Your task to perform on an android device: turn notification dots off Image 0: 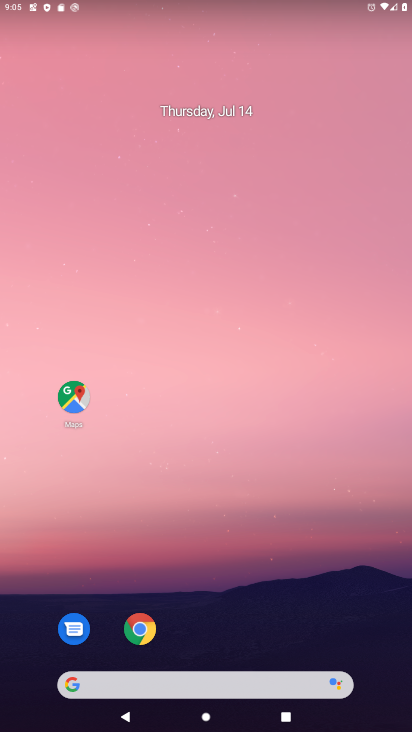
Step 0: drag from (272, 574) to (294, 288)
Your task to perform on an android device: turn notification dots off Image 1: 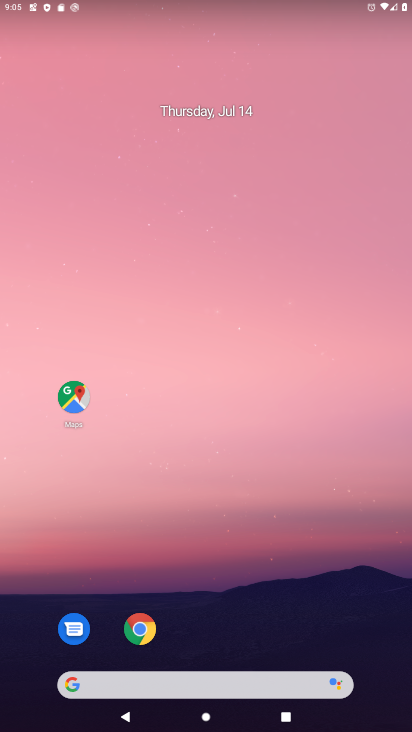
Step 1: drag from (294, 605) to (308, 109)
Your task to perform on an android device: turn notification dots off Image 2: 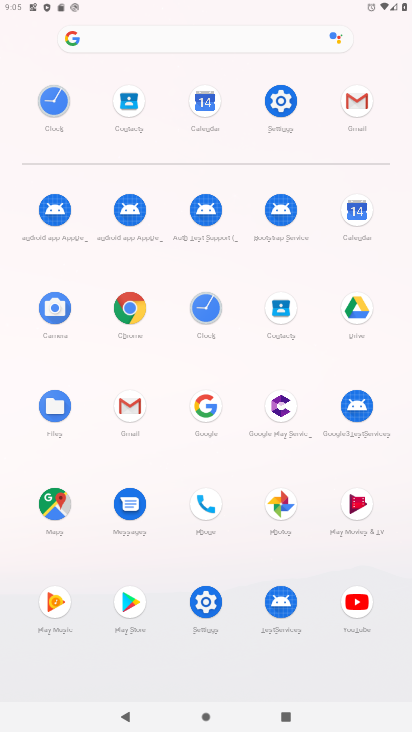
Step 2: click (276, 98)
Your task to perform on an android device: turn notification dots off Image 3: 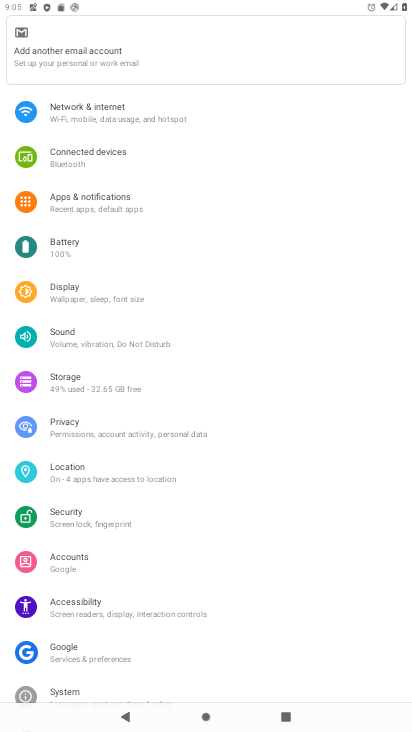
Step 3: click (81, 205)
Your task to perform on an android device: turn notification dots off Image 4: 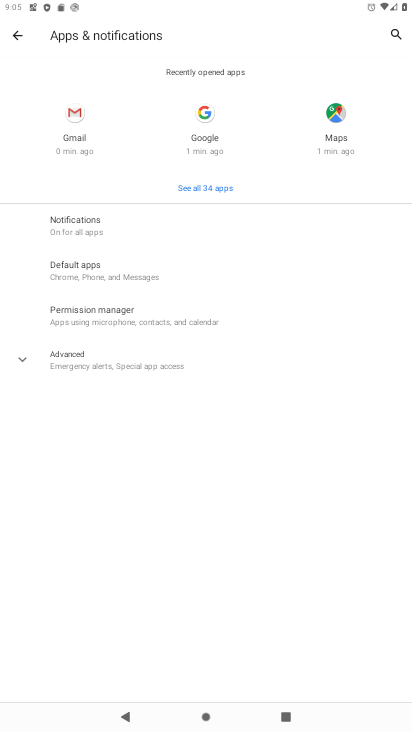
Step 4: click (89, 225)
Your task to perform on an android device: turn notification dots off Image 5: 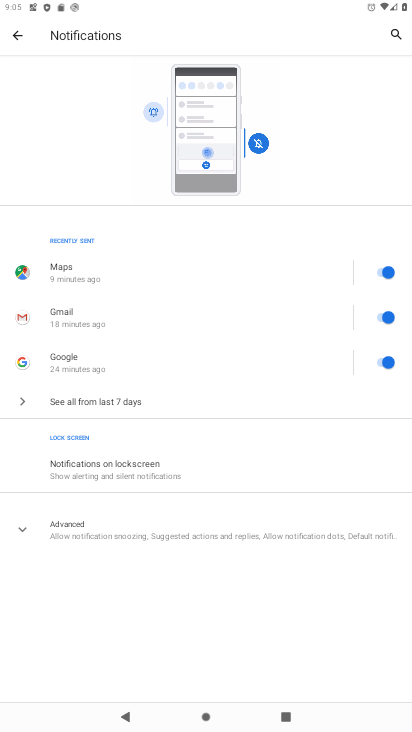
Step 5: click (70, 533)
Your task to perform on an android device: turn notification dots off Image 6: 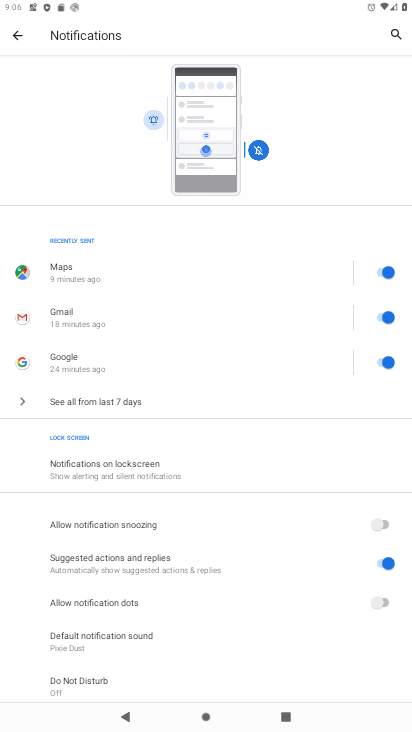
Step 6: task complete